Your task to perform on an android device: Open Youtube and go to "Your channel" Image 0: 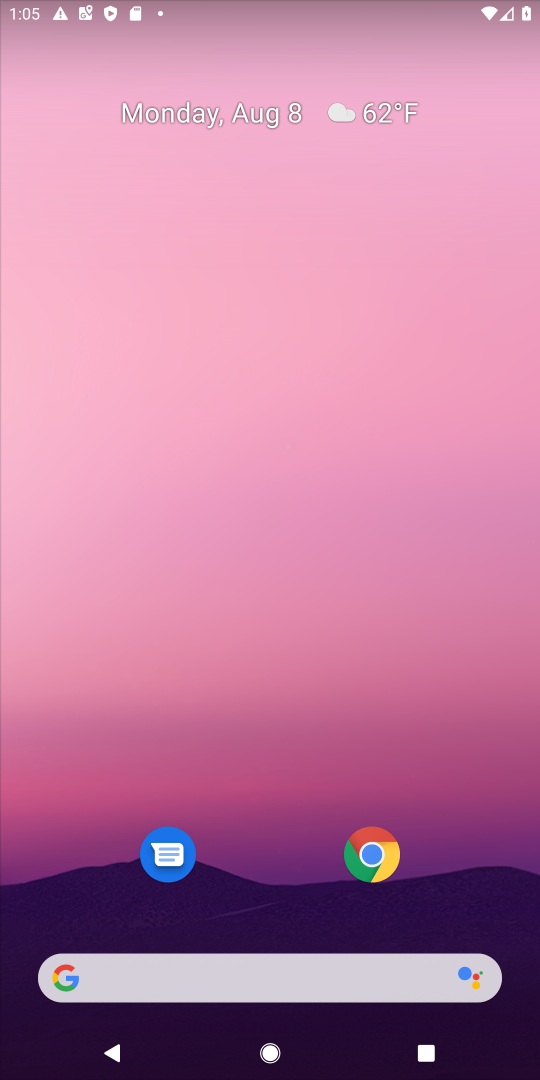
Step 0: press home button
Your task to perform on an android device: Open Youtube and go to "Your channel" Image 1: 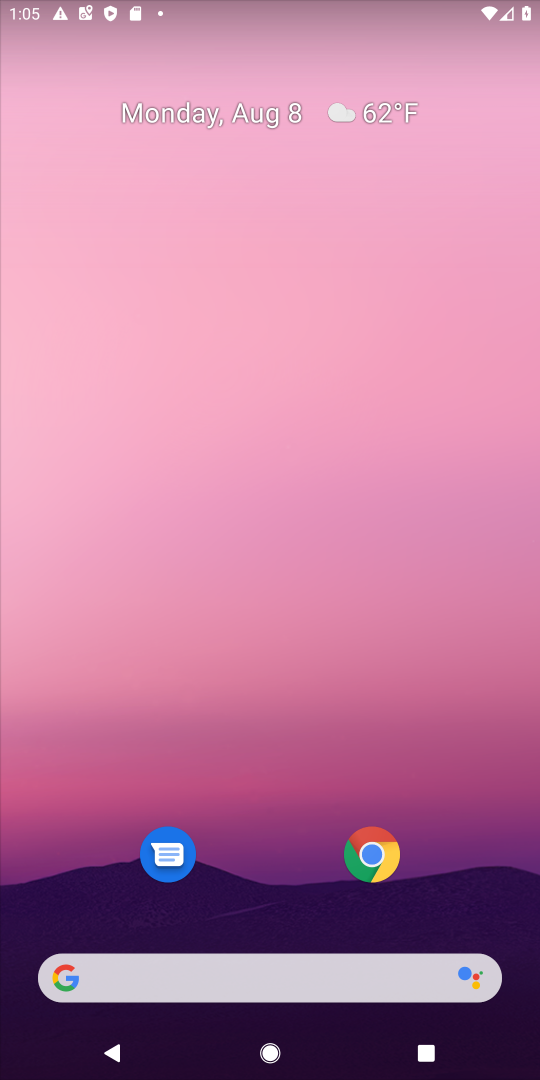
Step 1: drag from (294, 762) to (317, 166)
Your task to perform on an android device: Open Youtube and go to "Your channel" Image 2: 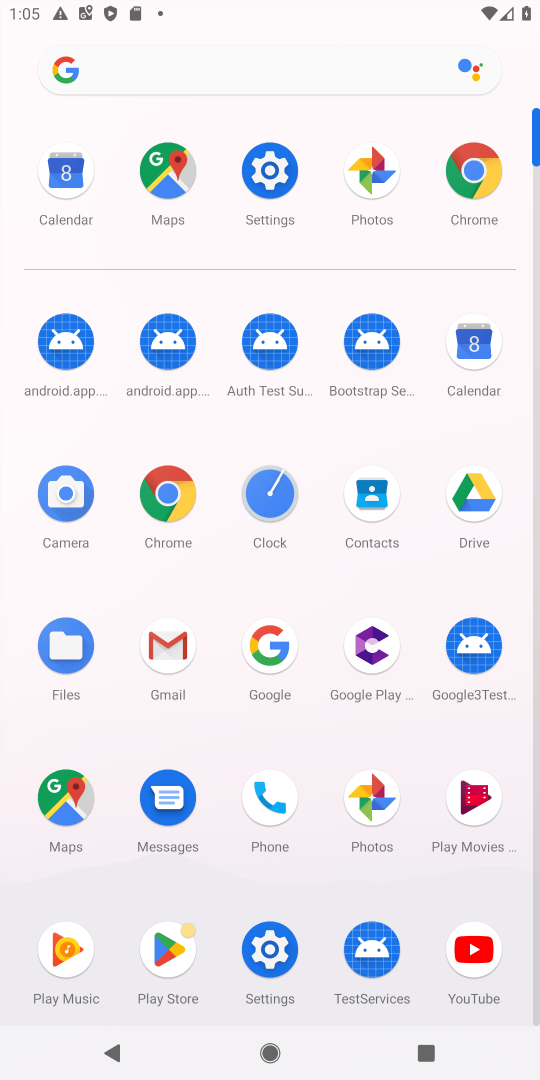
Step 2: click (486, 943)
Your task to perform on an android device: Open Youtube and go to "Your channel" Image 3: 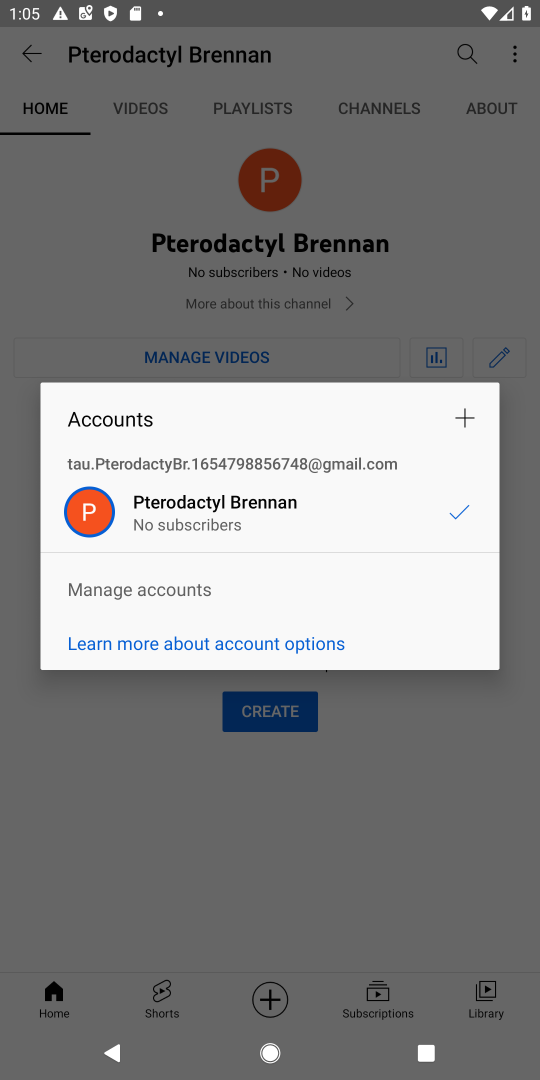
Step 3: task complete